Your task to perform on an android device: clear history in the chrome app Image 0: 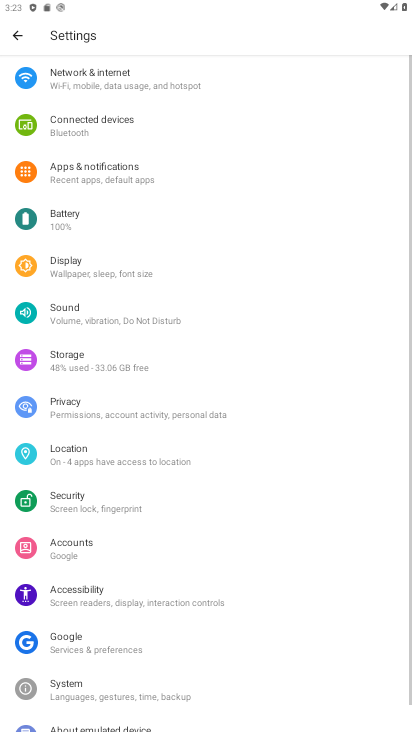
Step 0: press home button
Your task to perform on an android device: clear history in the chrome app Image 1: 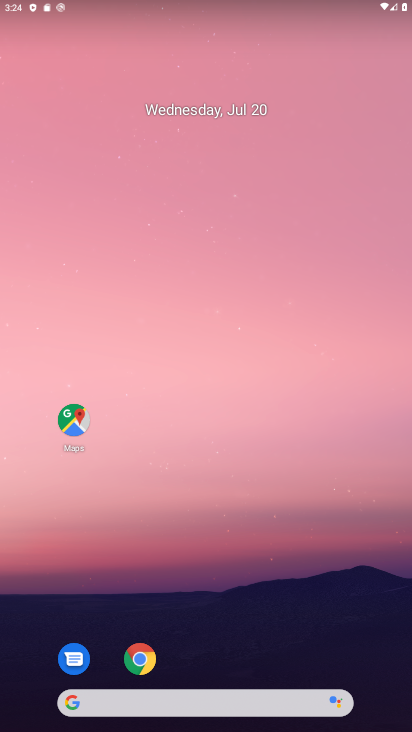
Step 1: click (143, 654)
Your task to perform on an android device: clear history in the chrome app Image 2: 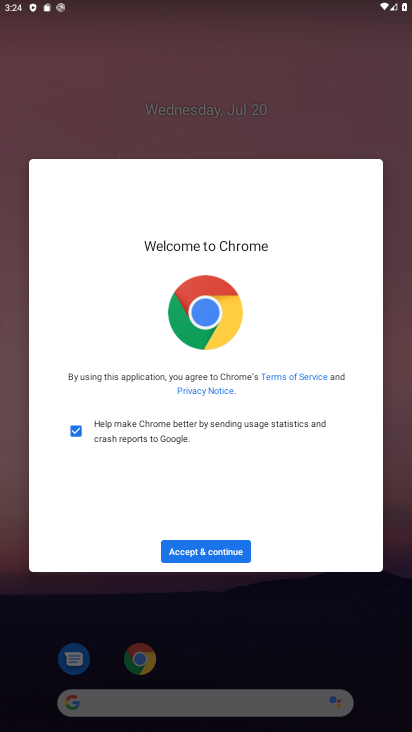
Step 2: click (205, 551)
Your task to perform on an android device: clear history in the chrome app Image 3: 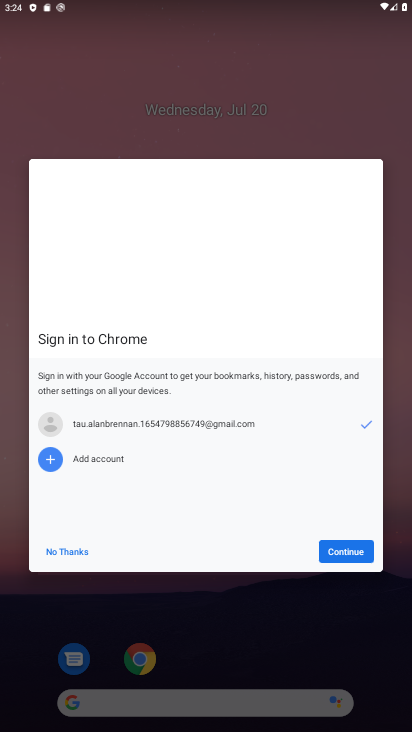
Step 3: click (326, 547)
Your task to perform on an android device: clear history in the chrome app Image 4: 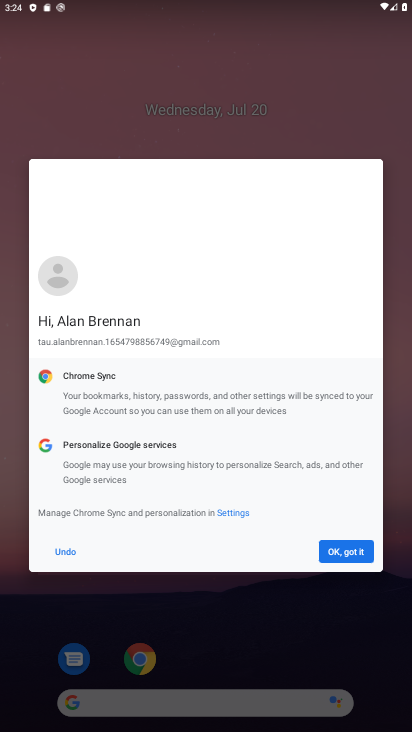
Step 4: click (326, 547)
Your task to perform on an android device: clear history in the chrome app Image 5: 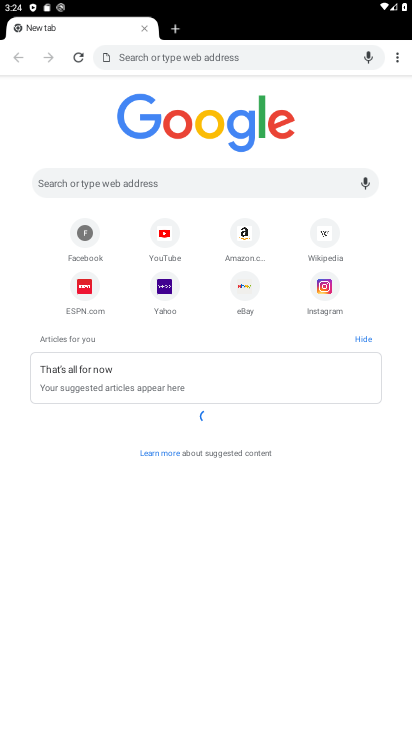
Step 5: click (397, 59)
Your task to perform on an android device: clear history in the chrome app Image 6: 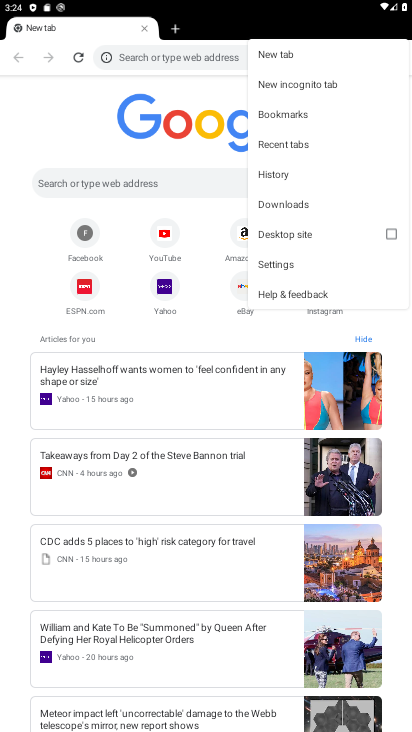
Step 6: click (272, 172)
Your task to perform on an android device: clear history in the chrome app Image 7: 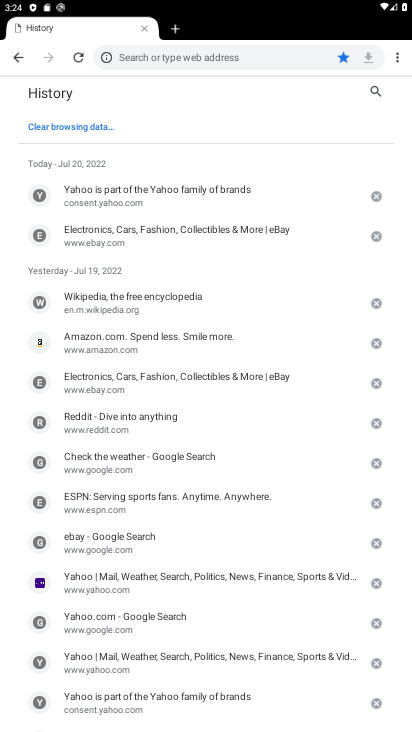
Step 7: click (58, 132)
Your task to perform on an android device: clear history in the chrome app Image 8: 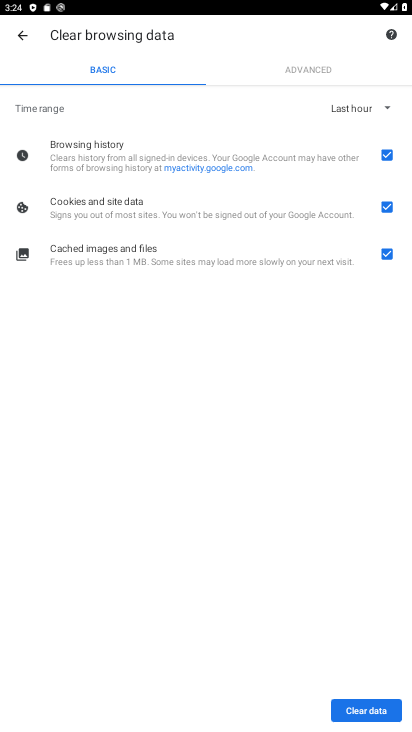
Step 8: click (355, 712)
Your task to perform on an android device: clear history in the chrome app Image 9: 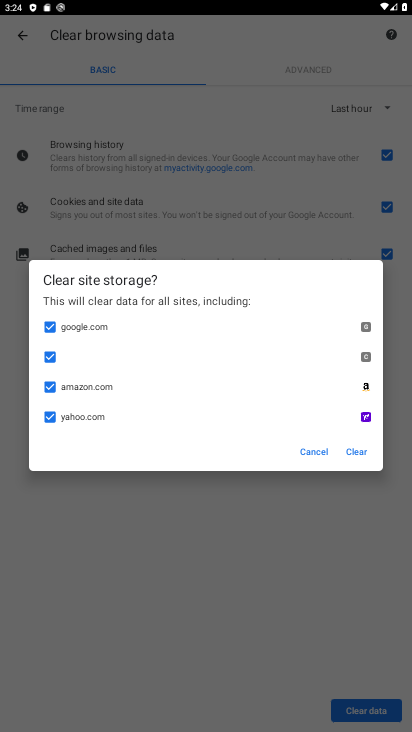
Step 9: click (359, 449)
Your task to perform on an android device: clear history in the chrome app Image 10: 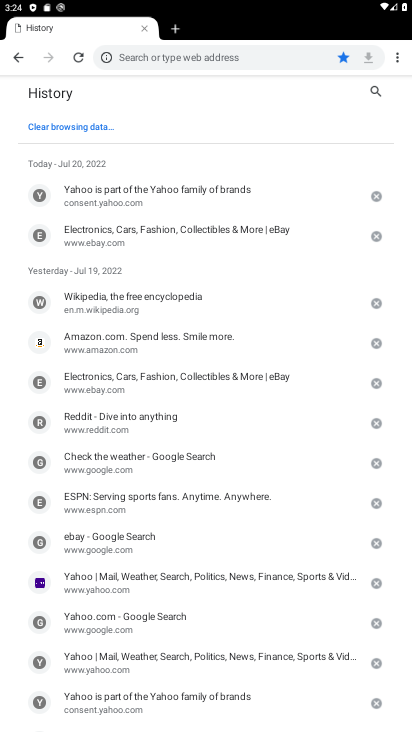
Step 10: task complete